Your task to perform on an android device: see sites visited before in the chrome app Image 0: 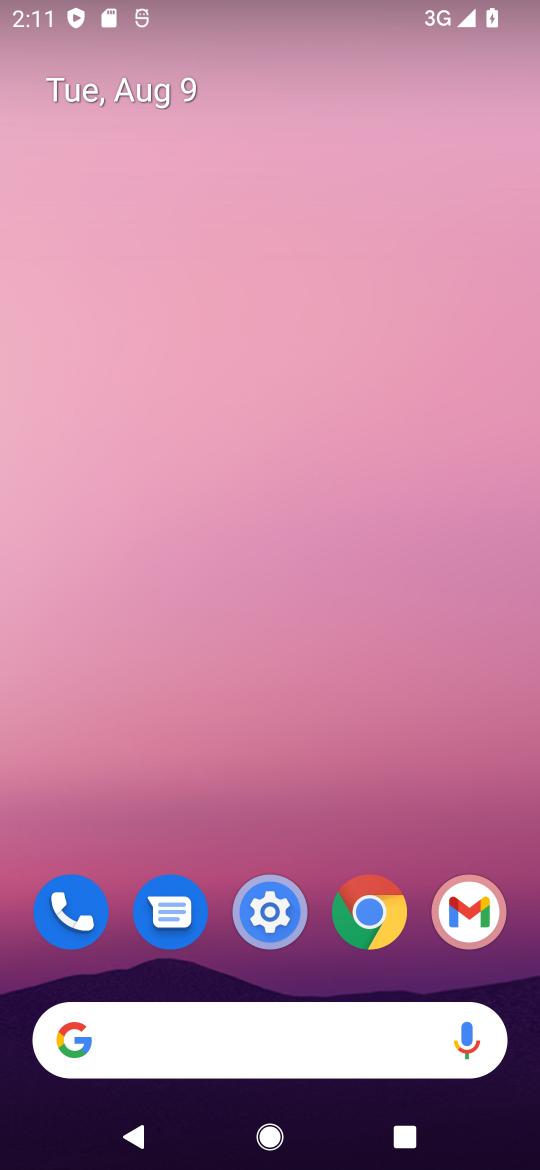
Step 0: click (382, 913)
Your task to perform on an android device: see sites visited before in the chrome app Image 1: 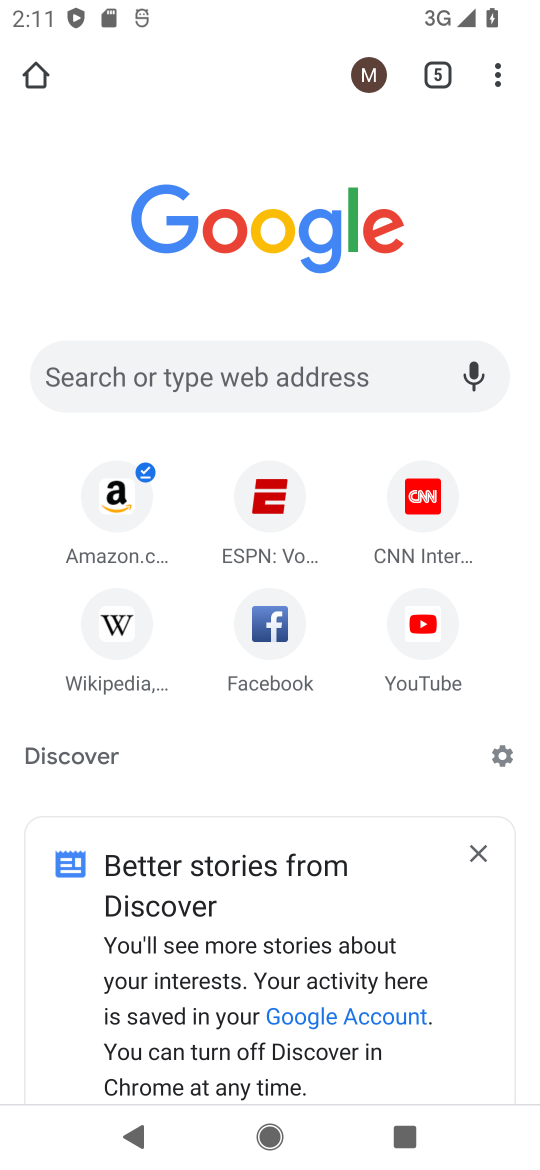
Step 1: click (499, 66)
Your task to perform on an android device: see sites visited before in the chrome app Image 2: 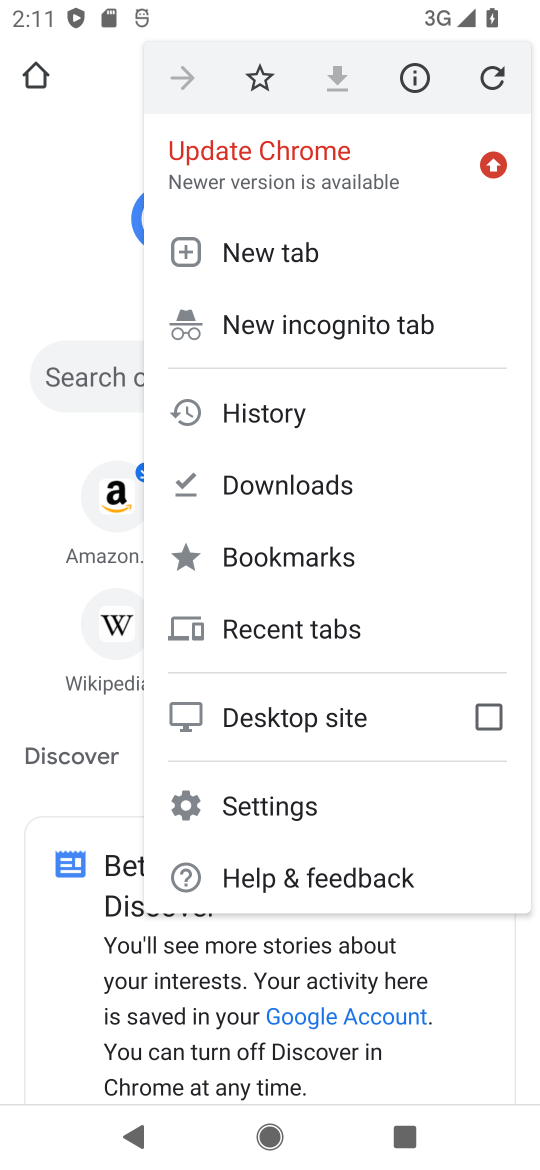
Step 2: click (250, 413)
Your task to perform on an android device: see sites visited before in the chrome app Image 3: 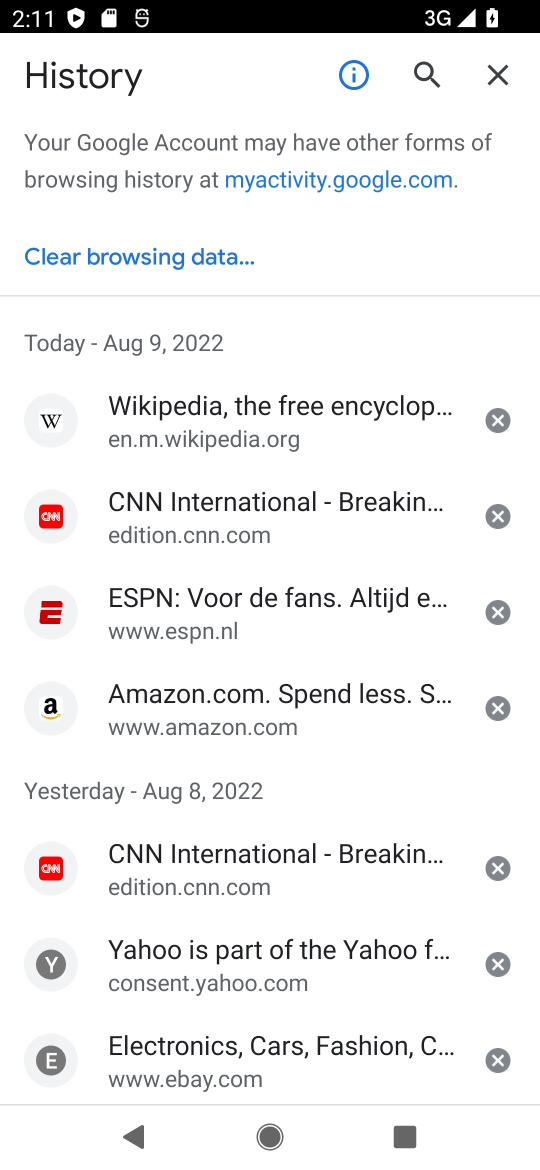
Step 3: task complete